Your task to perform on an android device: open wifi settings Image 0: 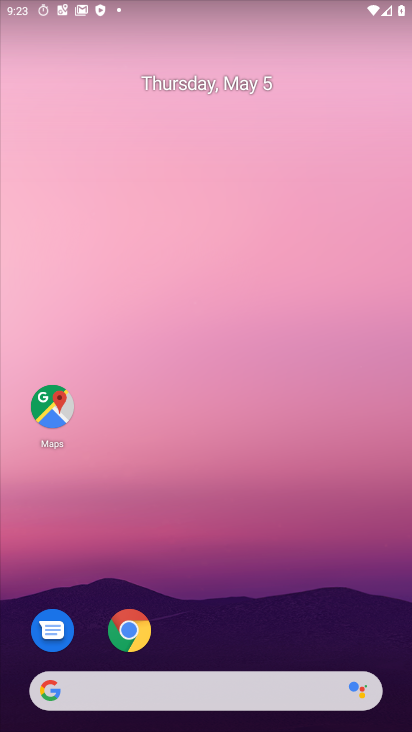
Step 0: drag from (177, 427) to (92, 112)
Your task to perform on an android device: open wifi settings Image 1: 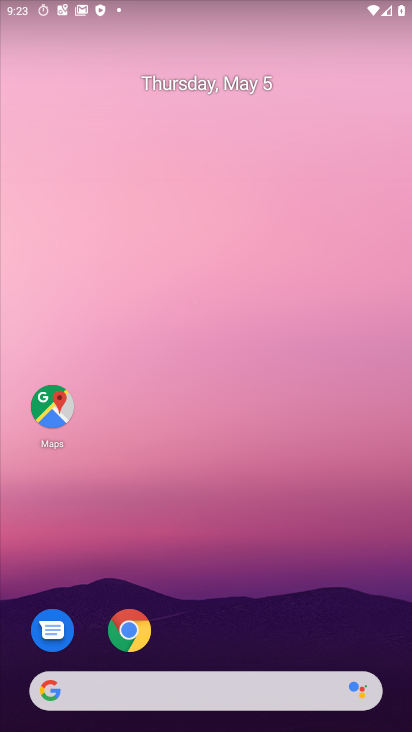
Step 1: drag from (237, 561) to (98, 54)
Your task to perform on an android device: open wifi settings Image 2: 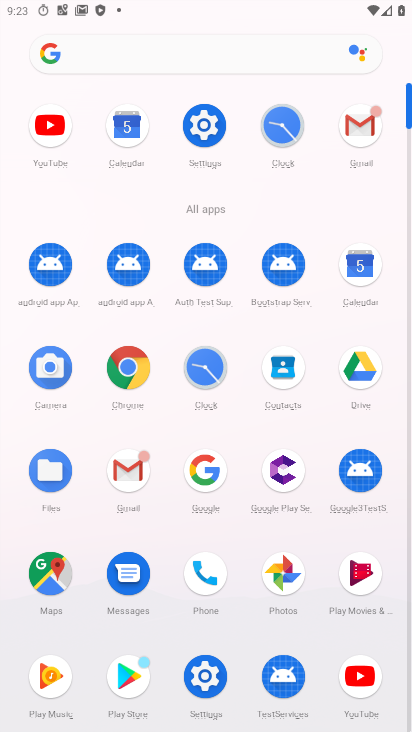
Step 2: click (203, 125)
Your task to perform on an android device: open wifi settings Image 3: 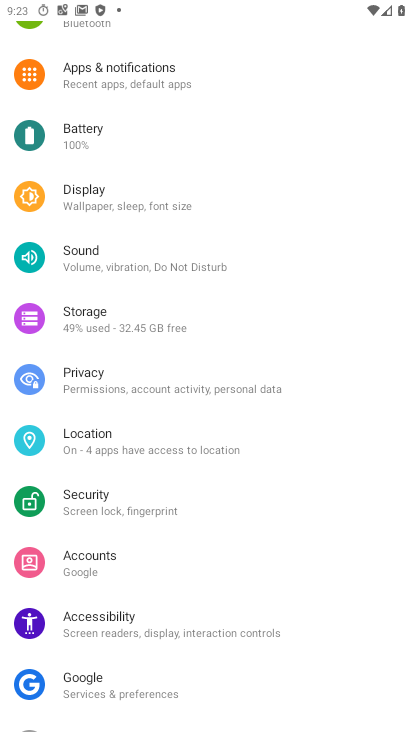
Step 3: drag from (148, 107) to (121, 414)
Your task to perform on an android device: open wifi settings Image 4: 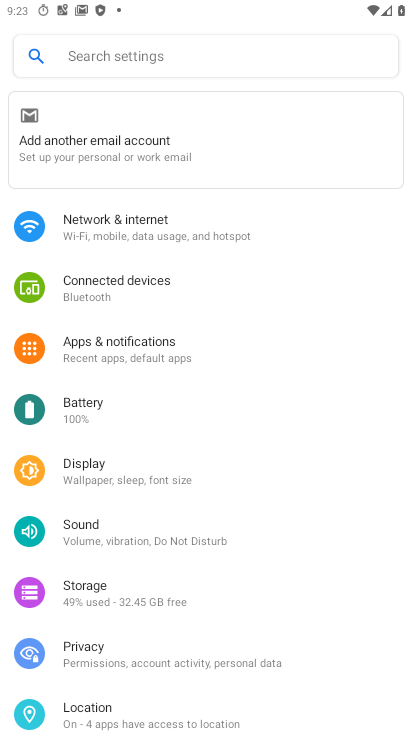
Step 4: click (107, 231)
Your task to perform on an android device: open wifi settings Image 5: 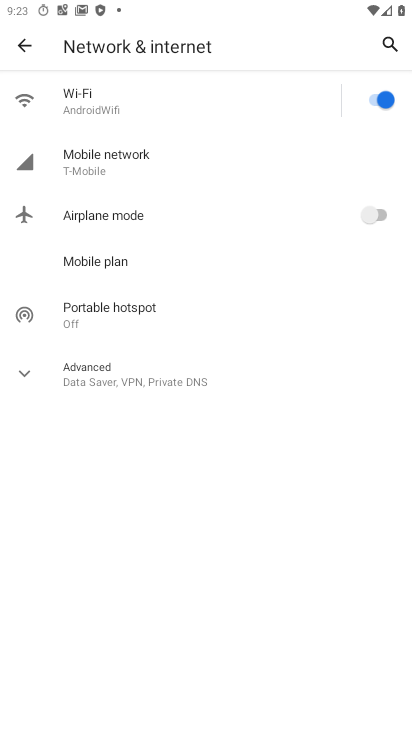
Step 5: click (88, 110)
Your task to perform on an android device: open wifi settings Image 6: 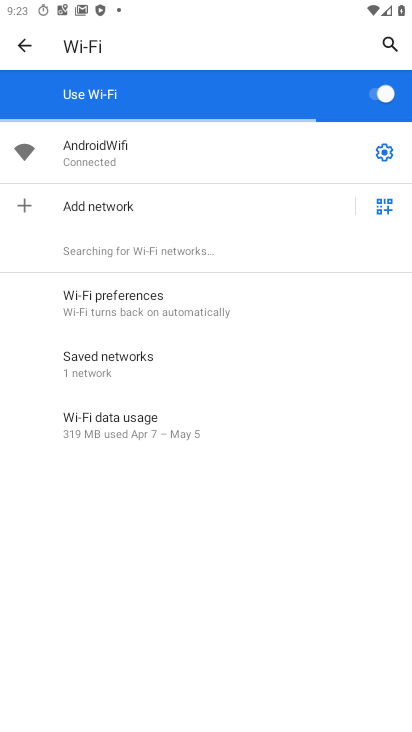
Step 6: task complete